Your task to perform on an android device: choose inbox layout in the gmail app Image 0: 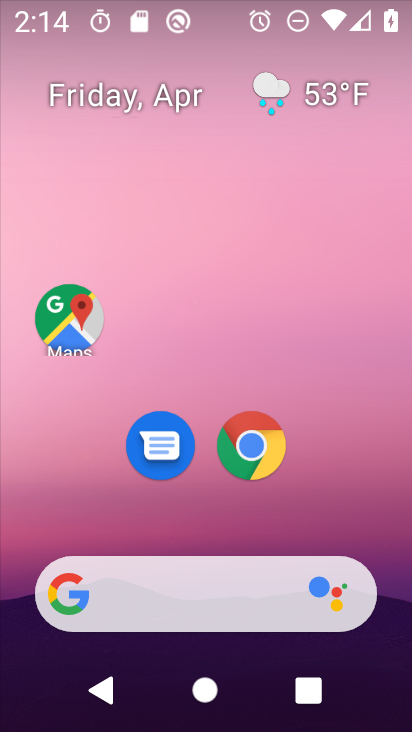
Step 0: drag from (391, 550) to (387, 175)
Your task to perform on an android device: choose inbox layout in the gmail app Image 1: 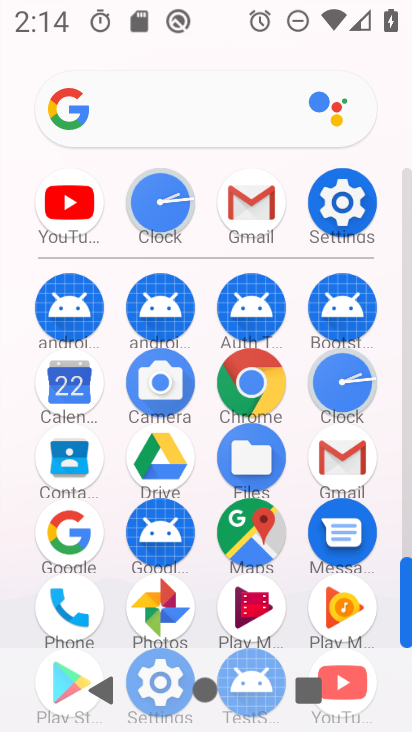
Step 1: click (351, 464)
Your task to perform on an android device: choose inbox layout in the gmail app Image 2: 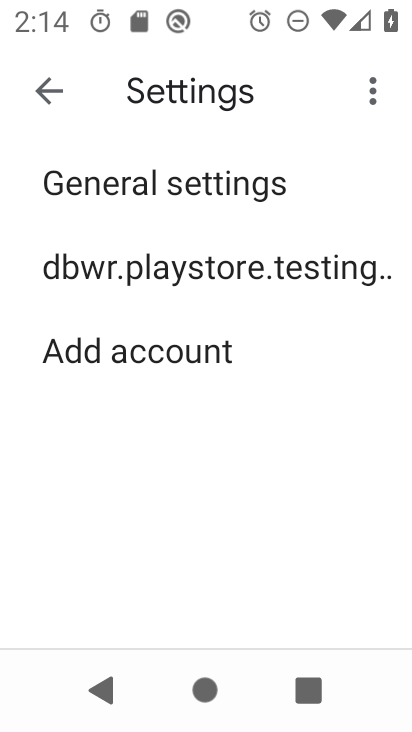
Step 2: click (298, 278)
Your task to perform on an android device: choose inbox layout in the gmail app Image 3: 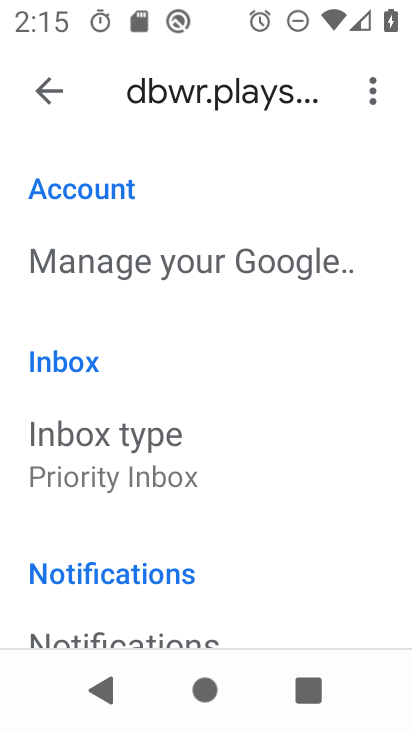
Step 3: drag from (348, 545) to (369, 335)
Your task to perform on an android device: choose inbox layout in the gmail app Image 4: 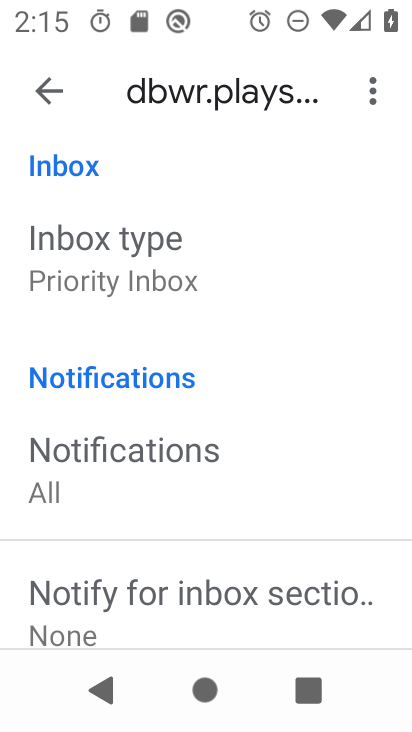
Step 4: drag from (344, 542) to (352, 322)
Your task to perform on an android device: choose inbox layout in the gmail app Image 5: 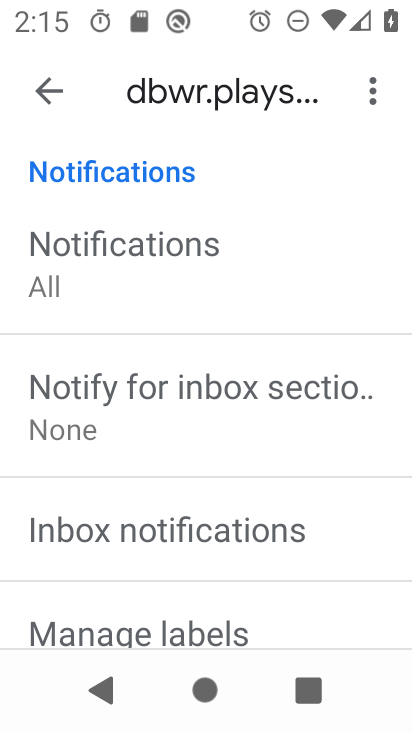
Step 5: drag from (343, 541) to (347, 305)
Your task to perform on an android device: choose inbox layout in the gmail app Image 6: 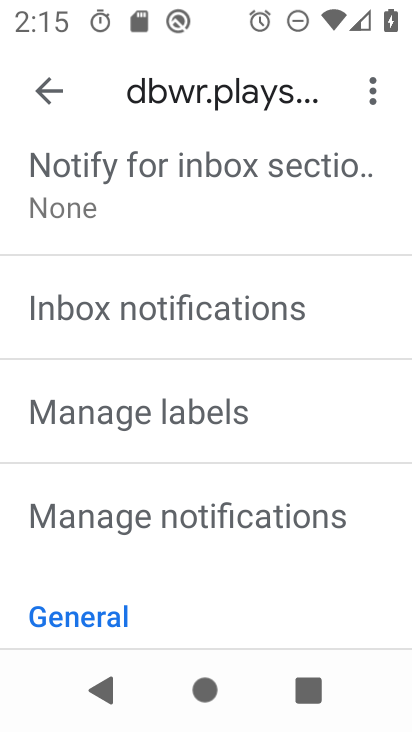
Step 6: drag from (356, 558) to (370, 329)
Your task to perform on an android device: choose inbox layout in the gmail app Image 7: 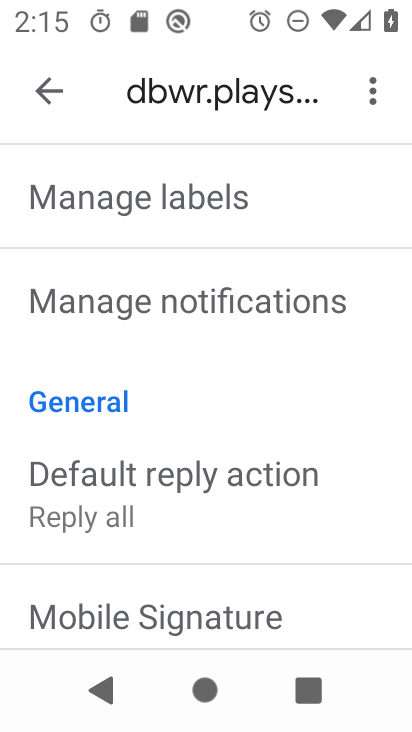
Step 7: drag from (352, 574) to (364, 369)
Your task to perform on an android device: choose inbox layout in the gmail app Image 8: 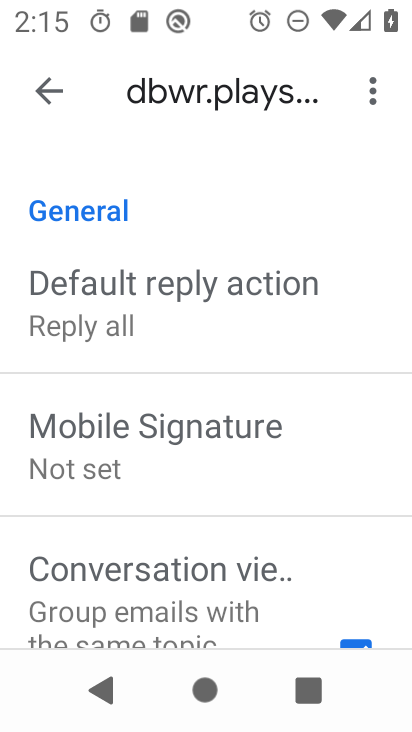
Step 8: drag from (360, 252) to (357, 496)
Your task to perform on an android device: choose inbox layout in the gmail app Image 9: 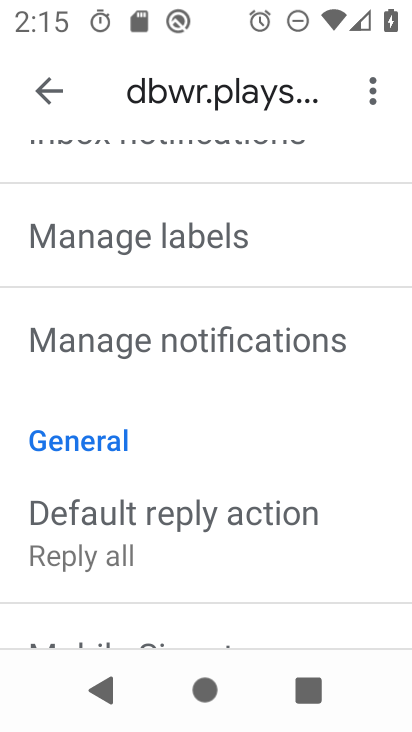
Step 9: drag from (374, 271) to (369, 459)
Your task to perform on an android device: choose inbox layout in the gmail app Image 10: 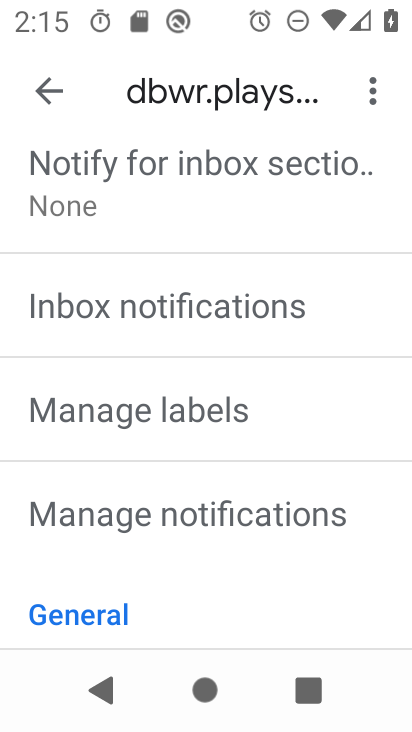
Step 10: drag from (355, 238) to (333, 445)
Your task to perform on an android device: choose inbox layout in the gmail app Image 11: 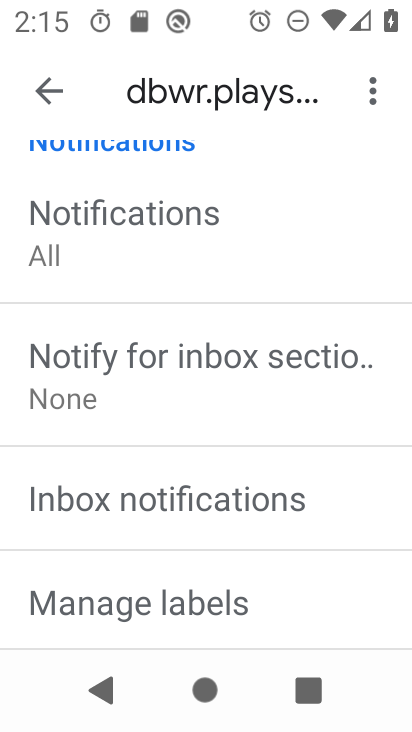
Step 11: drag from (343, 239) to (338, 442)
Your task to perform on an android device: choose inbox layout in the gmail app Image 12: 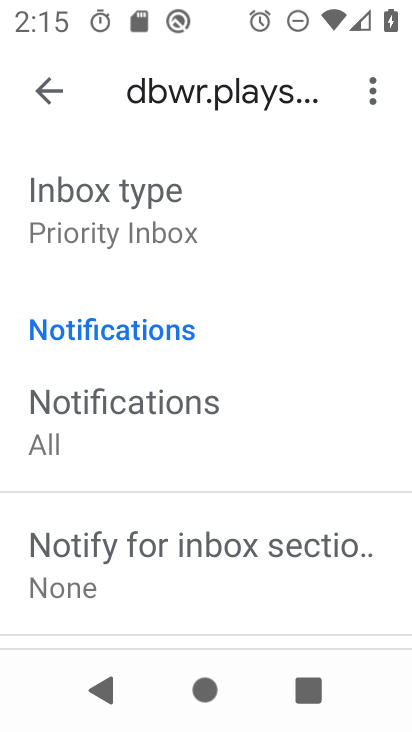
Step 12: click (122, 232)
Your task to perform on an android device: choose inbox layout in the gmail app Image 13: 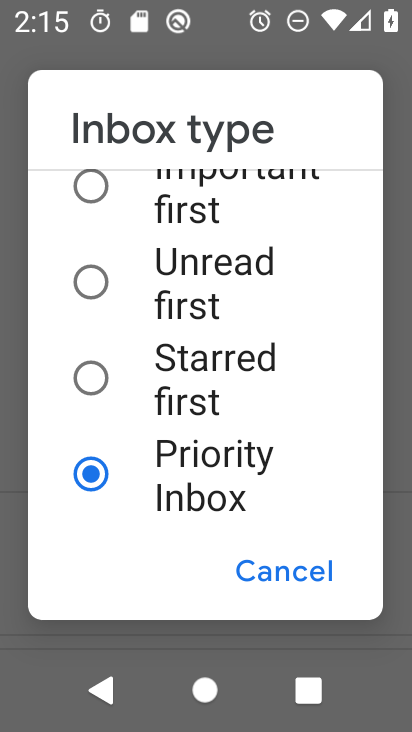
Step 13: click (197, 304)
Your task to perform on an android device: choose inbox layout in the gmail app Image 14: 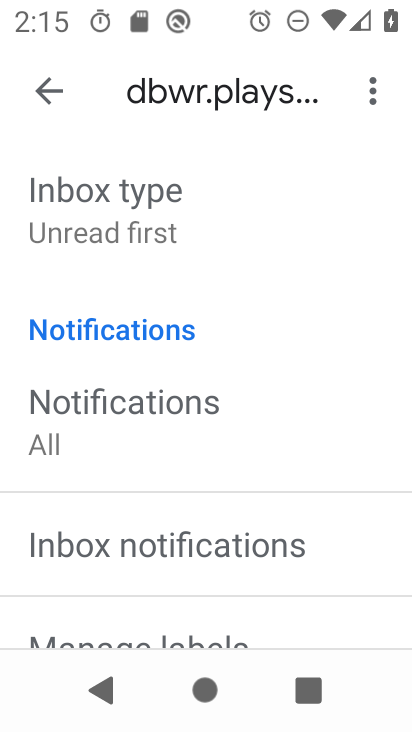
Step 14: task complete